Your task to perform on an android device: set an alarm Image 0: 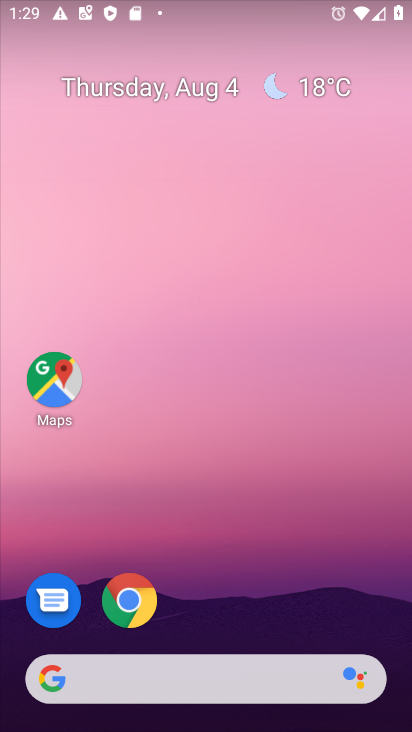
Step 0: drag from (145, 677) to (256, 165)
Your task to perform on an android device: set an alarm Image 1: 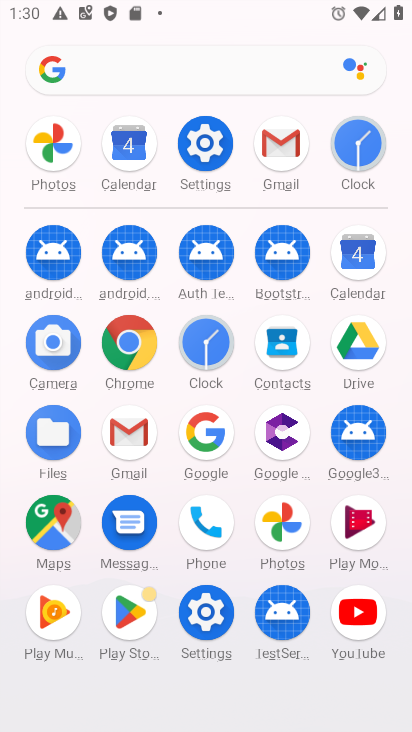
Step 1: click (205, 345)
Your task to perform on an android device: set an alarm Image 2: 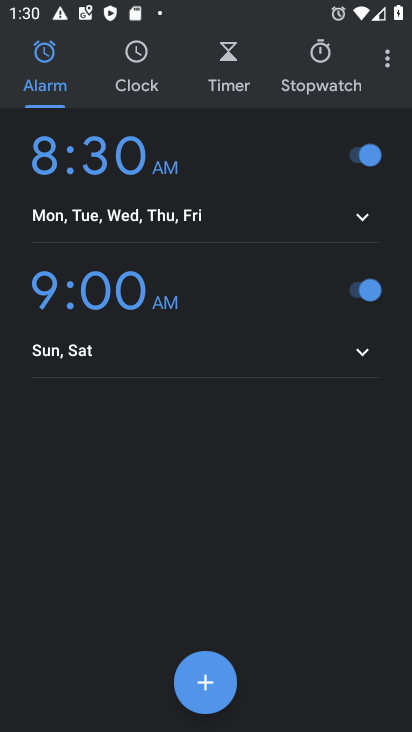
Step 2: click (203, 664)
Your task to perform on an android device: set an alarm Image 3: 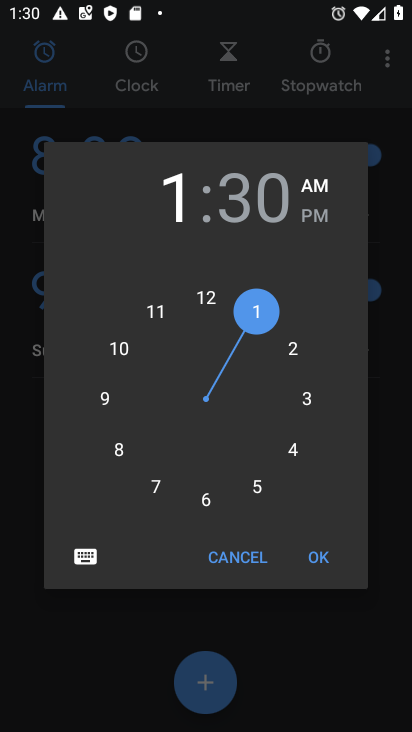
Step 3: click (297, 392)
Your task to perform on an android device: set an alarm Image 4: 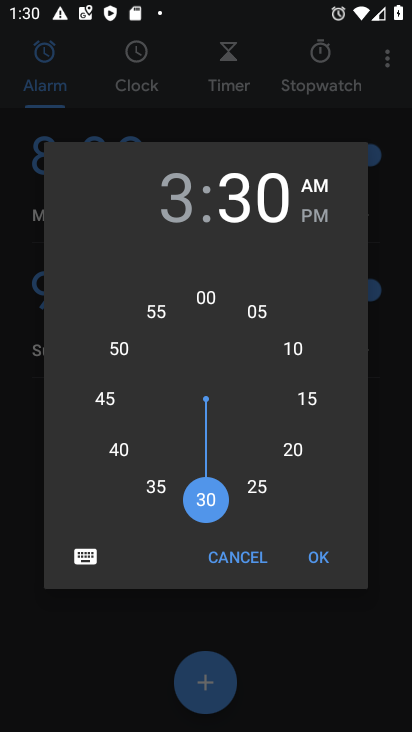
Step 4: click (165, 486)
Your task to perform on an android device: set an alarm Image 5: 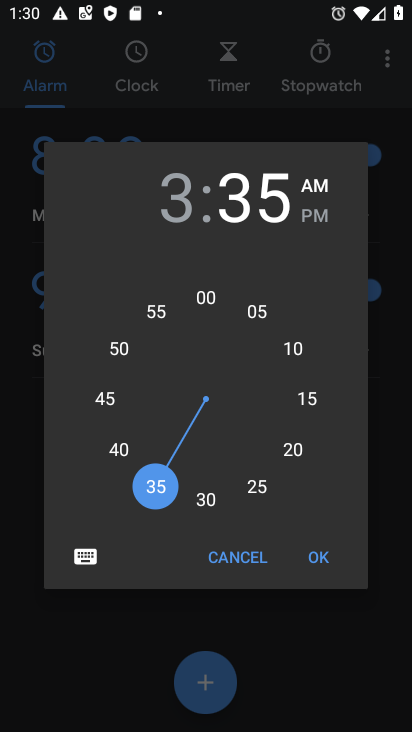
Step 5: task complete